Your task to perform on an android device: open chrome privacy settings Image 0: 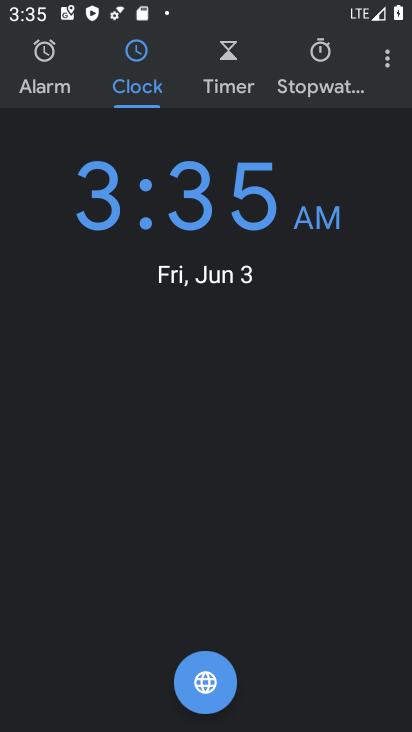
Step 0: press home button
Your task to perform on an android device: open chrome privacy settings Image 1: 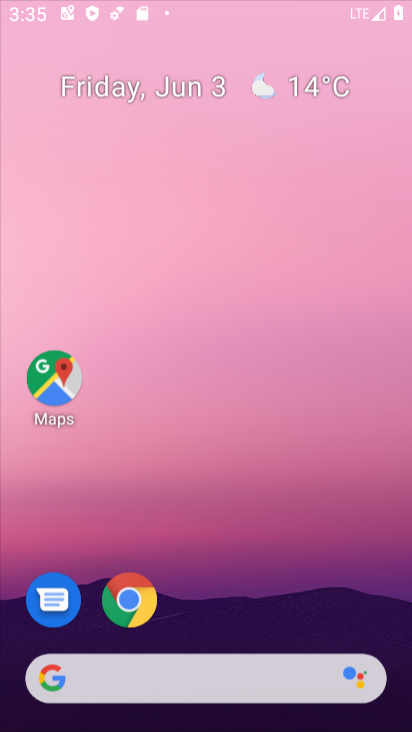
Step 1: click (142, 600)
Your task to perform on an android device: open chrome privacy settings Image 2: 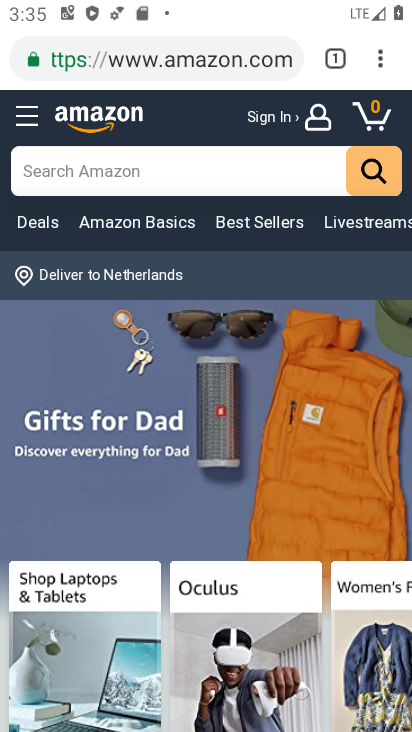
Step 2: click (369, 61)
Your task to perform on an android device: open chrome privacy settings Image 3: 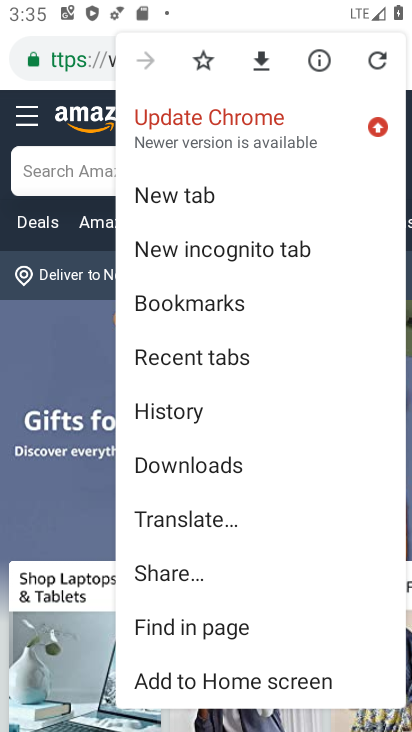
Step 3: drag from (199, 508) to (216, 285)
Your task to perform on an android device: open chrome privacy settings Image 4: 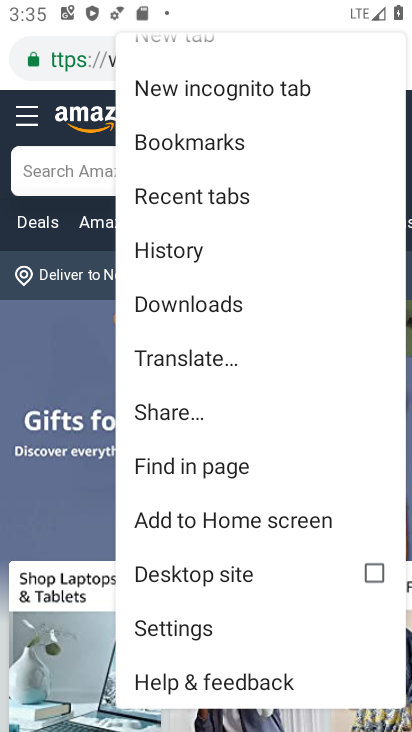
Step 4: click (198, 627)
Your task to perform on an android device: open chrome privacy settings Image 5: 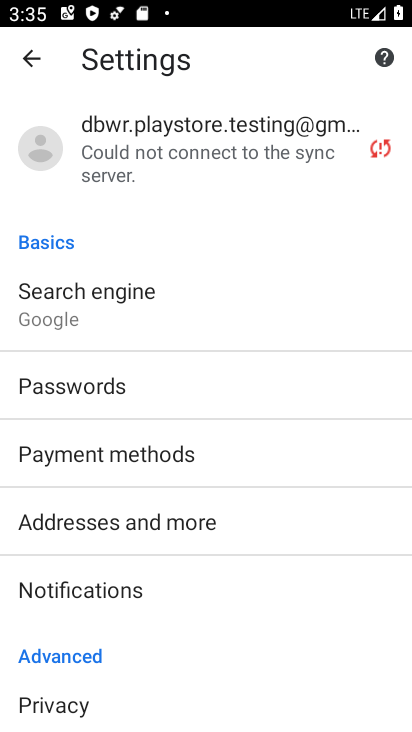
Step 5: drag from (108, 323) to (124, 98)
Your task to perform on an android device: open chrome privacy settings Image 6: 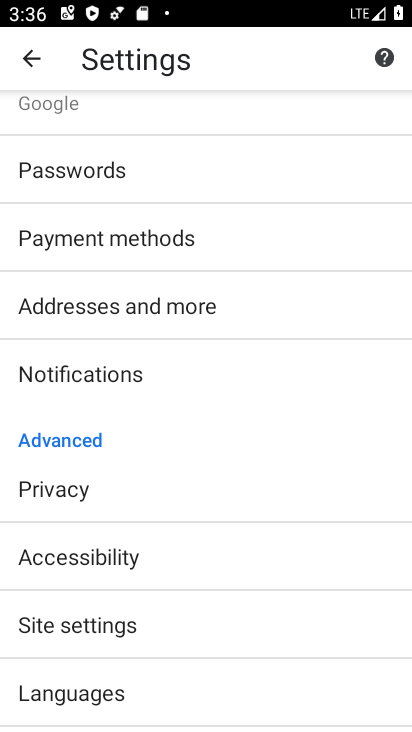
Step 6: click (61, 512)
Your task to perform on an android device: open chrome privacy settings Image 7: 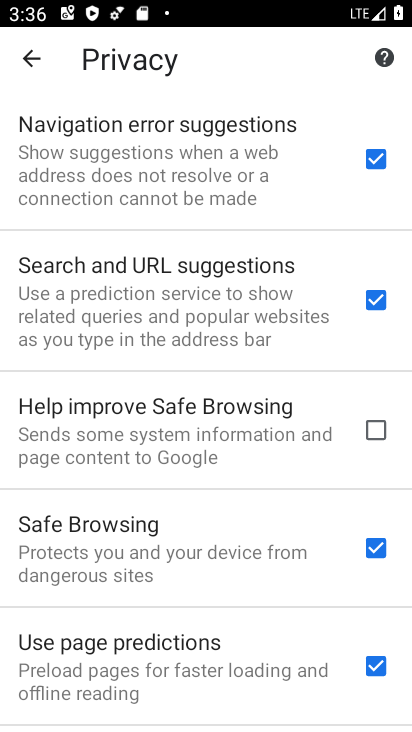
Step 7: click (58, 514)
Your task to perform on an android device: open chrome privacy settings Image 8: 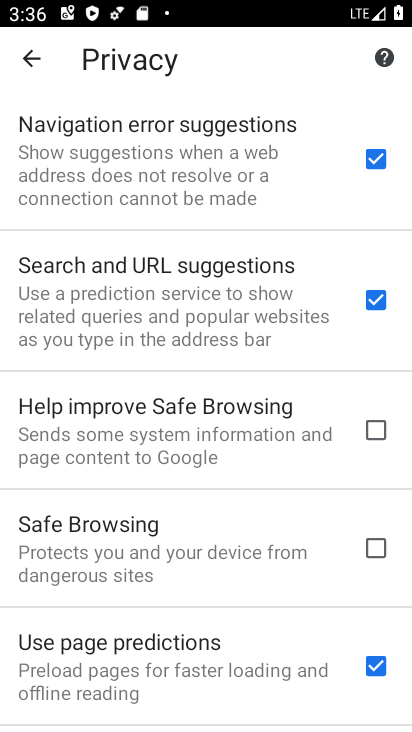
Step 8: task complete